Your task to perform on an android device: Open Android settings Image 0: 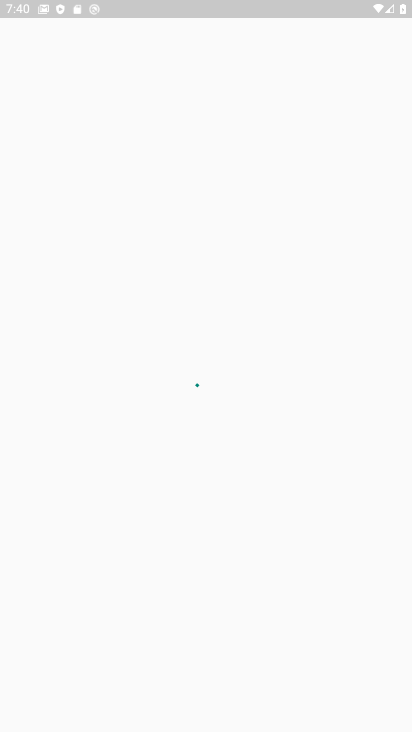
Step 0: press home button
Your task to perform on an android device: Open Android settings Image 1: 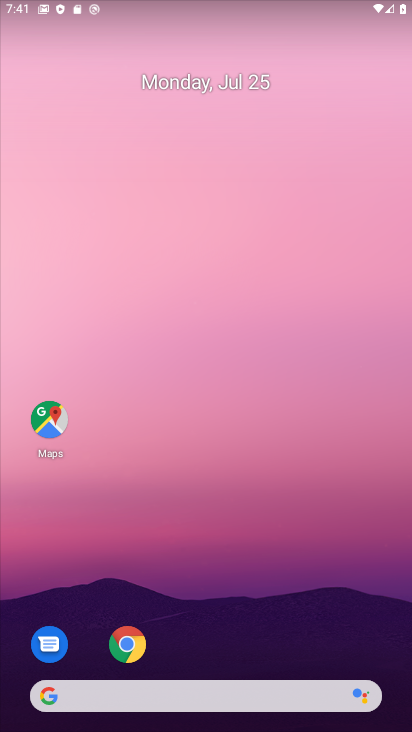
Step 1: drag from (201, 623) to (326, 3)
Your task to perform on an android device: Open Android settings Image 2: 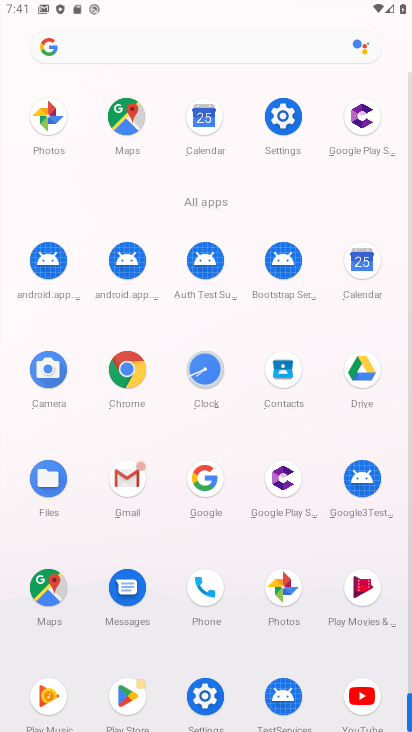
Step 2: click (283, 132)
Your task to perform on an android device: Open Android settings Image 3: 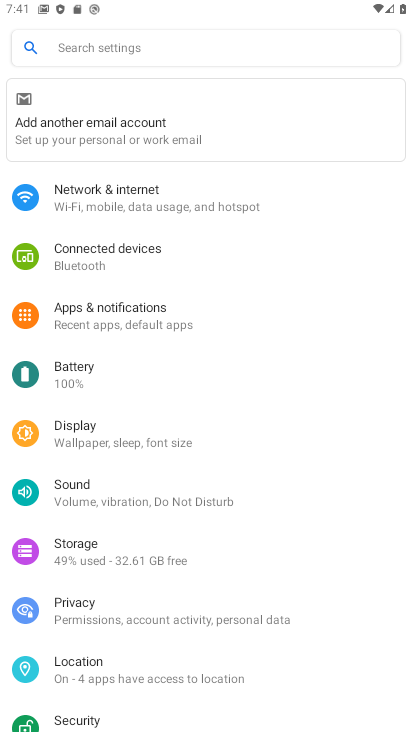
Step 3: task complete